Your task to perform on an android device: Open Chrome and go to settings Image 0: 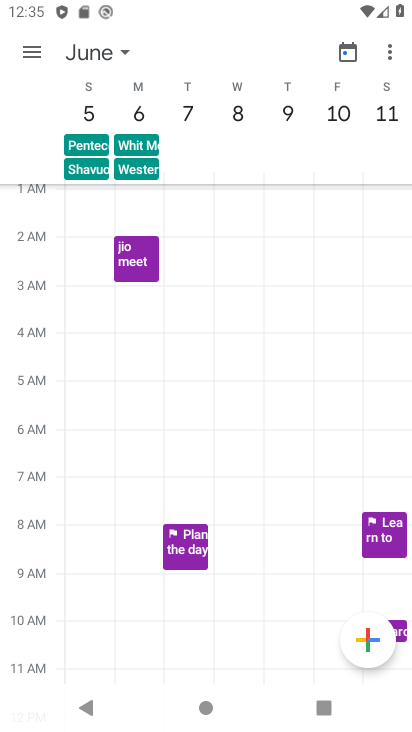
Step 0: type "re"
Your task to perform on an android device: Open Chrome and go to settings Image 1: 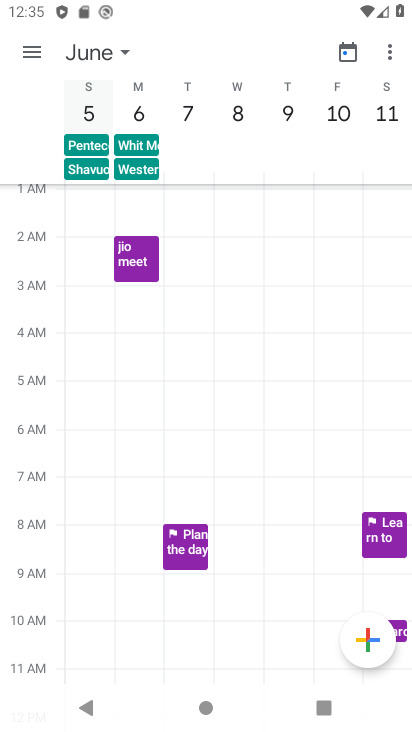
Step 1: press home button
Your task to perform on an android device: Open Chrome and go to settings Image 2: 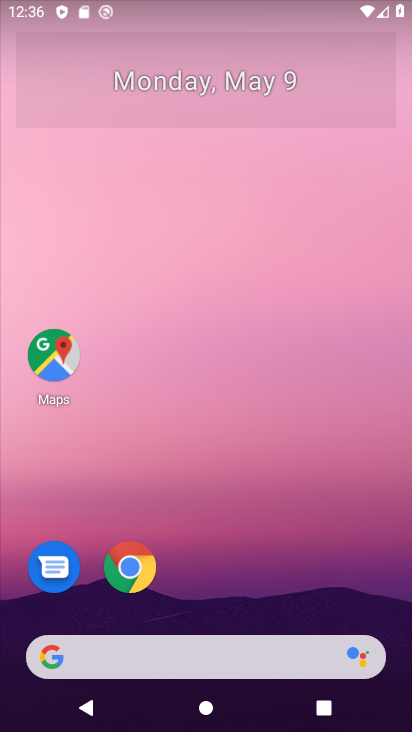
Step 2: click (127, 549)
Your task to perform on an android device: Open Chrome and go to settings Image 3: 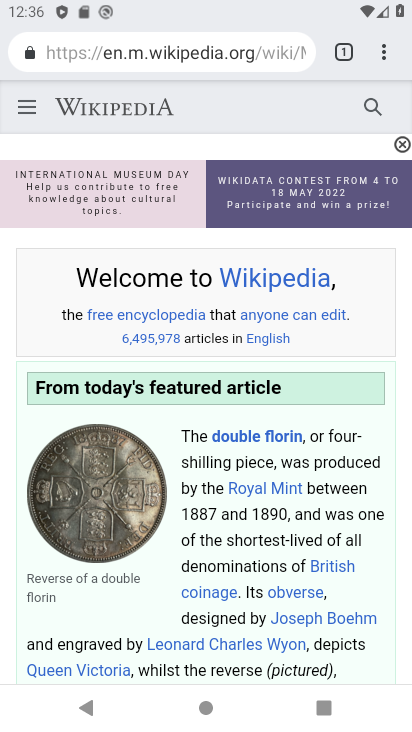
Step 3: click (384, 61)
Your task to perform on an android device: Open Chrome and go to settings Image 4: 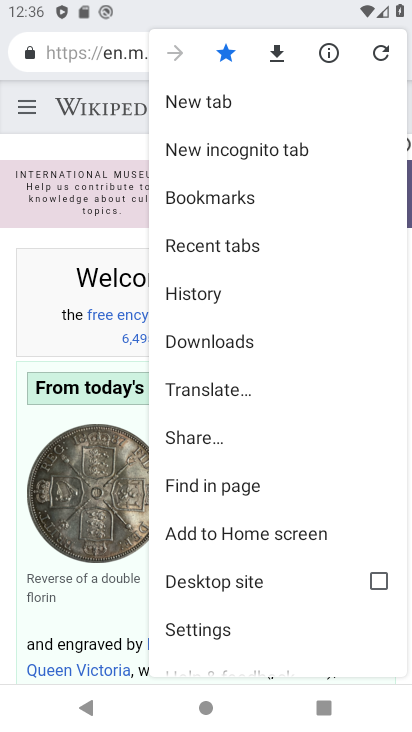
Step 4: click (214, 628)
Your task to perform on an android device: Open Chrome and go to settings Image 5: 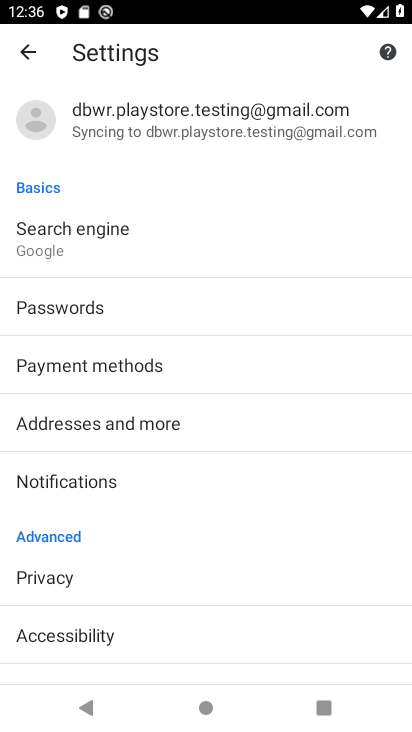
Step 5: task complete